Your task to perform on an android device: change the clock display to show seconds Image 0: 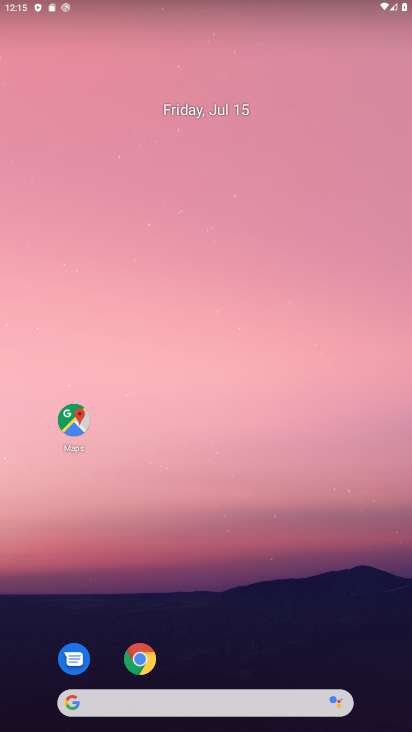
Step 0: drag from (189, 648) to (192, 217)
Your task to perform on an android device: change the clock display to show seconds Image 1: 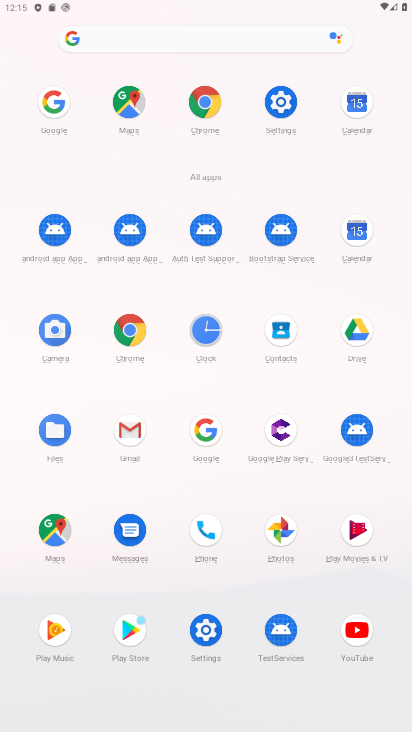
Step 1: click (205, 337)
Your task to perform on an android device: change the clock display to show seconds Image 2: 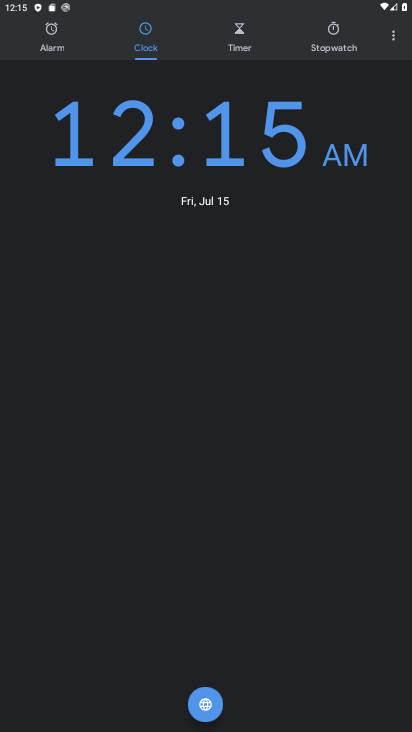
Step 2: click (389, 42)
Your task to perform on an android device: change the clock display to show seconds Image 3: 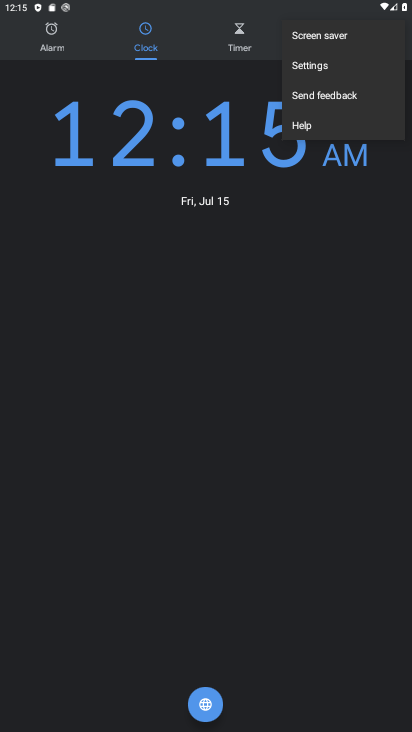
Step 3: click (342, 72)
Your task to perform on an android device: change the clock display to show seconds Image 4: 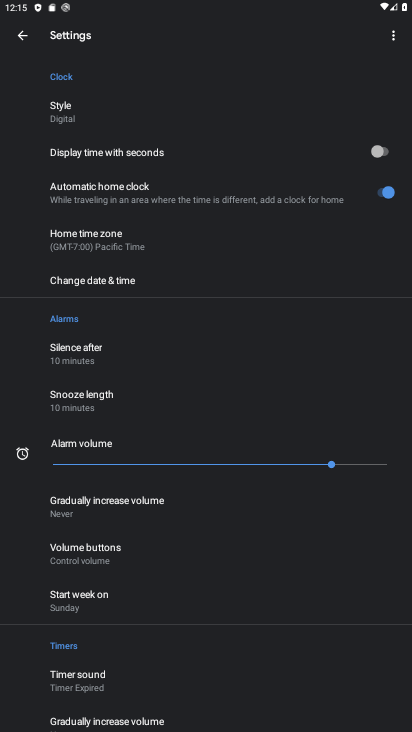
Step 4: click (389, 157)
Your task to perform on an android device: change the clock display to show seconds Image 5: 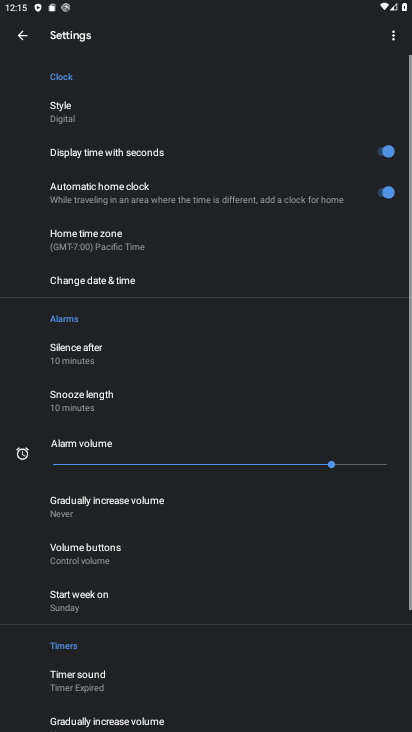
Step 5: task complete